Your task to perform on an android device: find which apps use the phone's location Image 0: 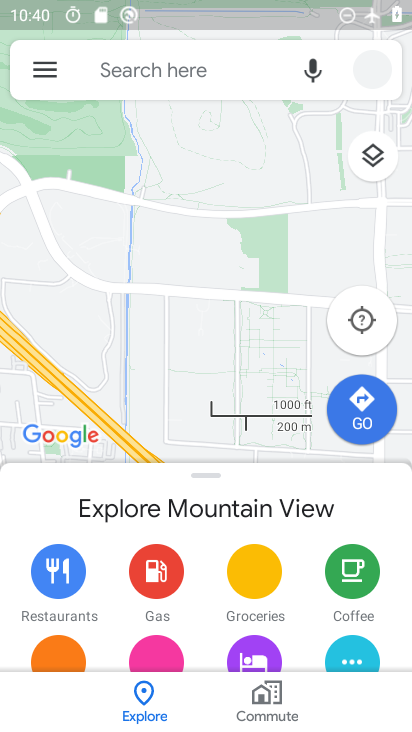
Step 0: press home button
Your task to perform on an android device: find which apps use the phone's location Image 1: 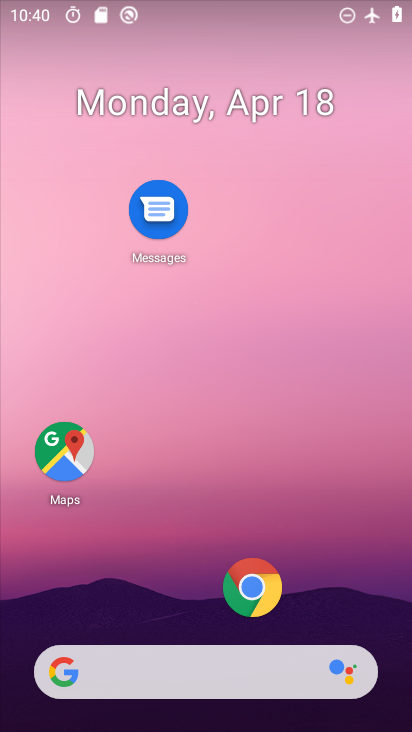
Step 1: drag from (189, 627) to (229, 94)
Your task to perform on an android device: find which apps use the phone's location Image 2: 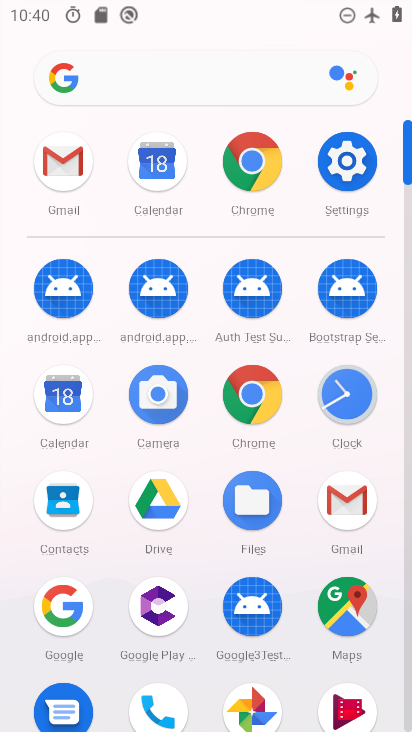
Step 2: click (371, 161)
Your task to perform on an android device: find which apps use the phone's location Image 3: 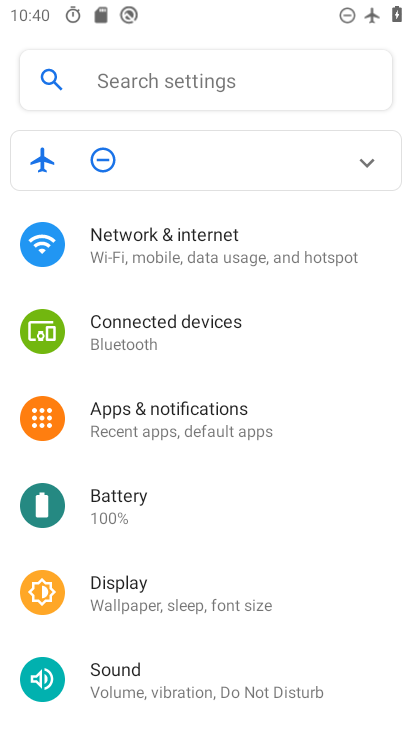
Step 3: drag from (198, 656) to (264, 237)
Your task to perform on an android device: find which apps use the phone's location Image 4: 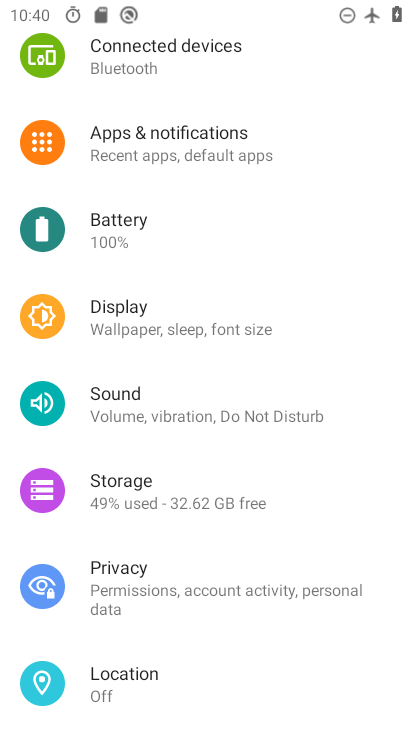
Step 4: click (156, 675)
Your task to perform on an android device: find which apps use the phone's location Image 5: 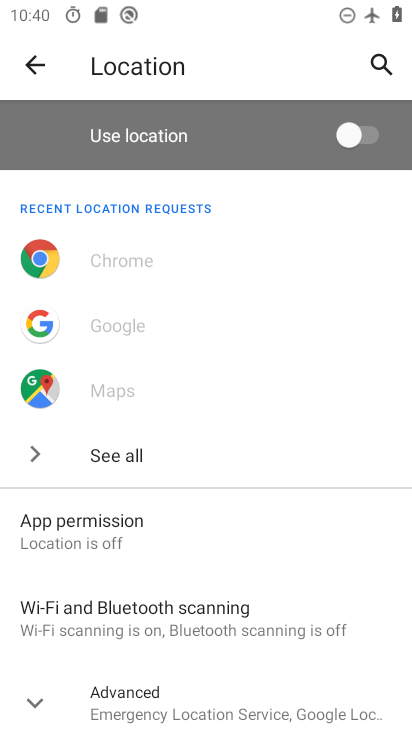
Step 5: click (142, 529)
Your task to perform on an android device: find which apps use the phone's location Image 6: 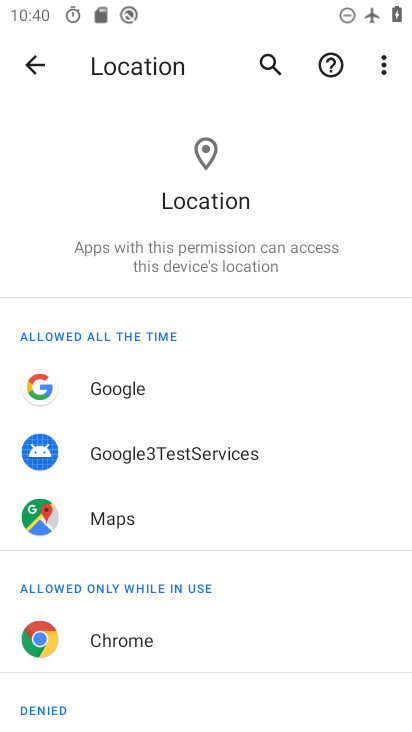
Step 6: task complete